Your task to perform on an android device: Go to battery settings Image 0: 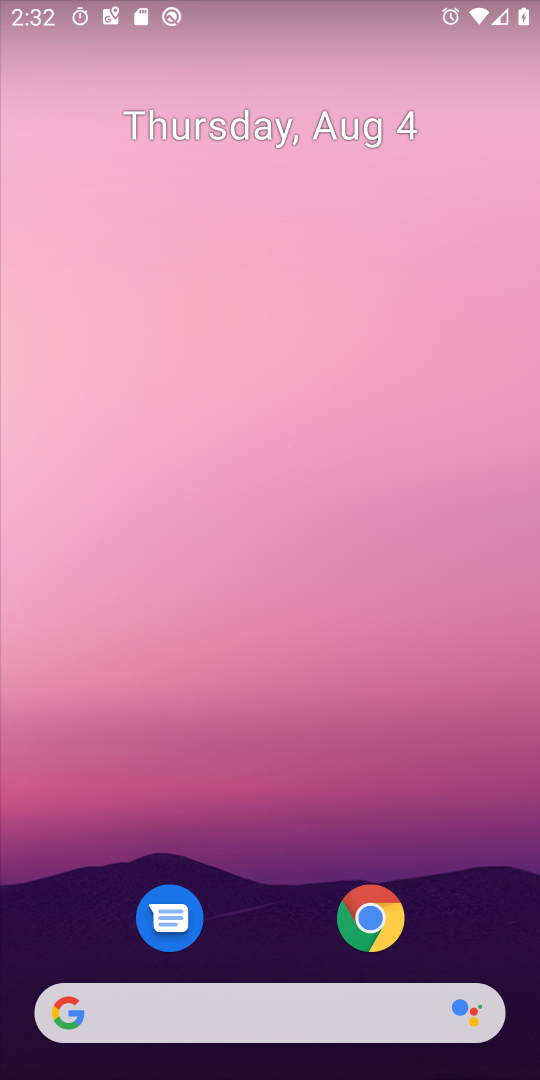
Step 0: drag from (276, 880) to (254, 255)
Your task to perform on an android device: Go to battery settings Image 1: 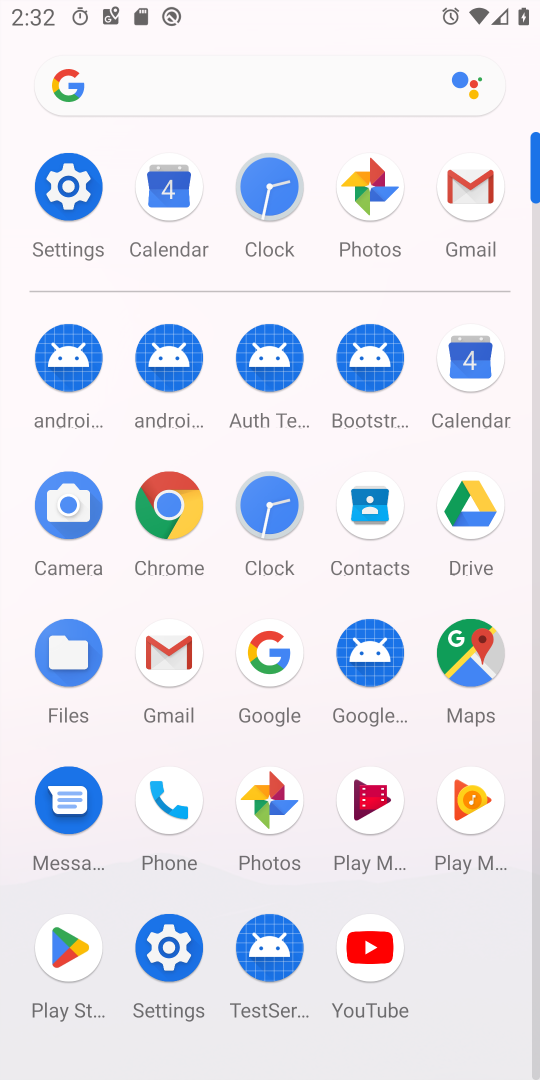
Step 1: click (73, 171)
Your task to perform on an android device: Go to battery settings Image 2: 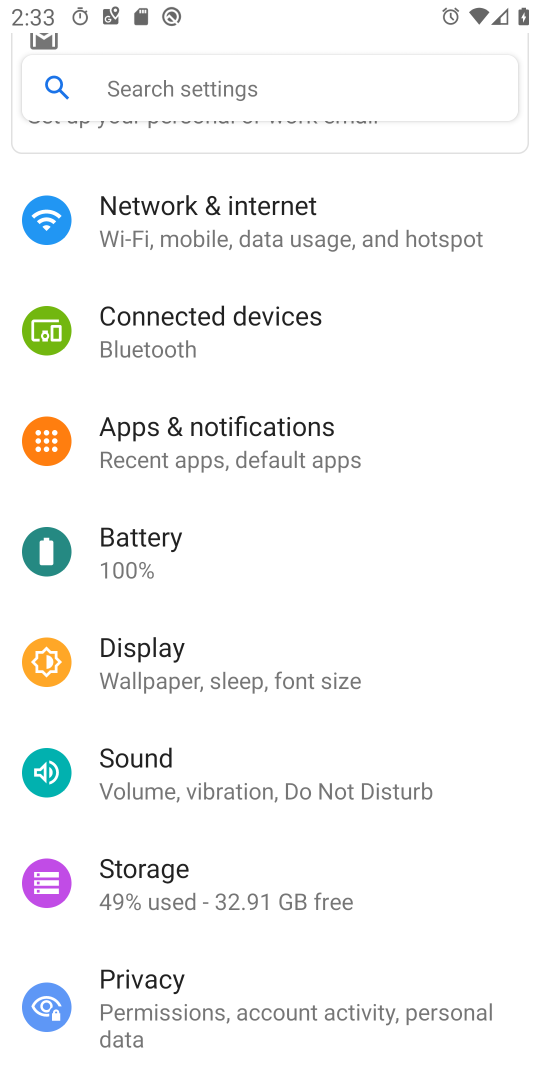
Step 2: click (217, 569)
Your task to perform on an android device: Go to battery settings Image 3: 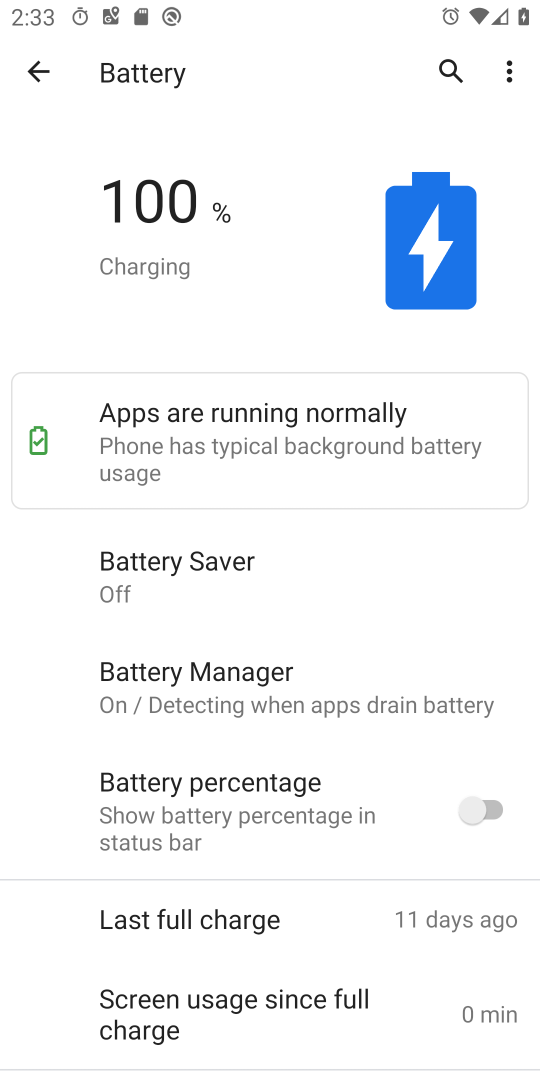
Step 3: task complete